Your task to perform on an android device: turn on priority inbox in the gmail app Image 0: 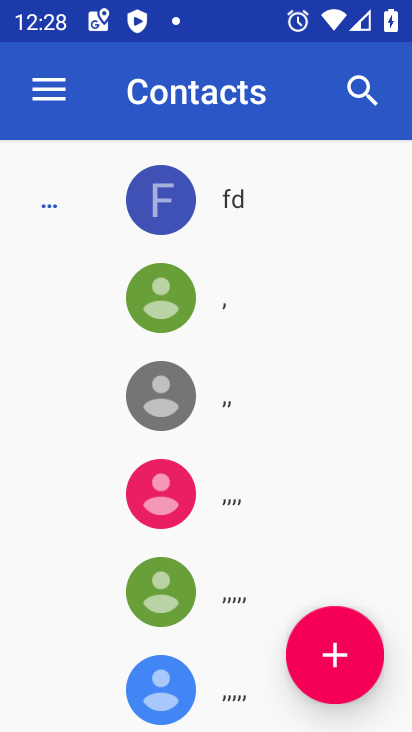
Step 0: press home button
Your task to perform on an android device: turn on priority inbox in the gmail app Image 1: 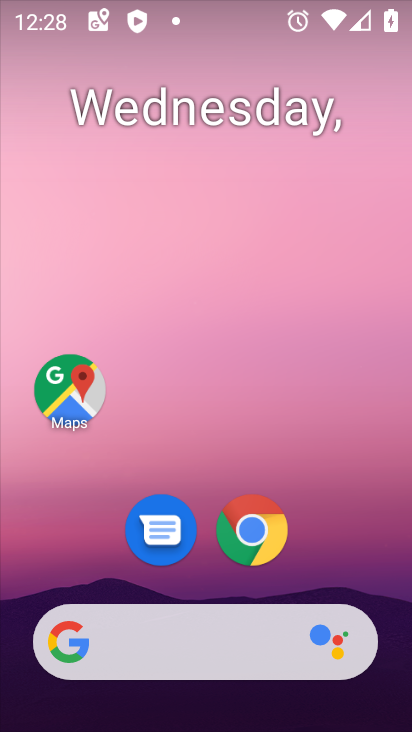
Step 1: drag from (149, 570) to (280, 172)
Your task to perform on an android device: turn on priority inbox in the gmail app Image 2: 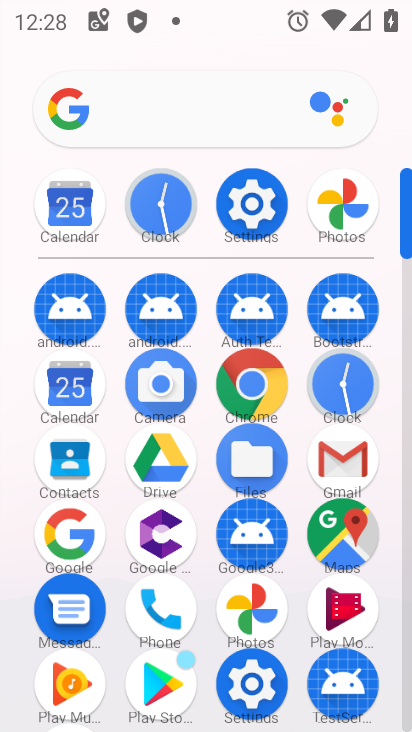
Step 2: click (356, 472)
Your task to perform on an android device: turn on priority inbox in the gmail app Image 3: 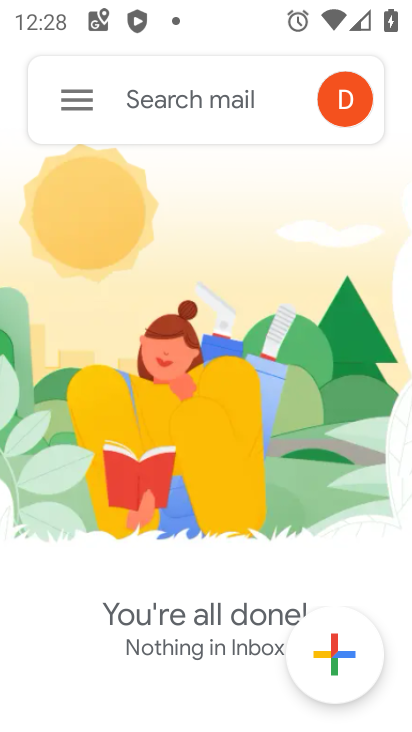
Step 3: click (66, 104)
Your task to perform on an android device: turn on priority inbox in the gmail app Image 4: 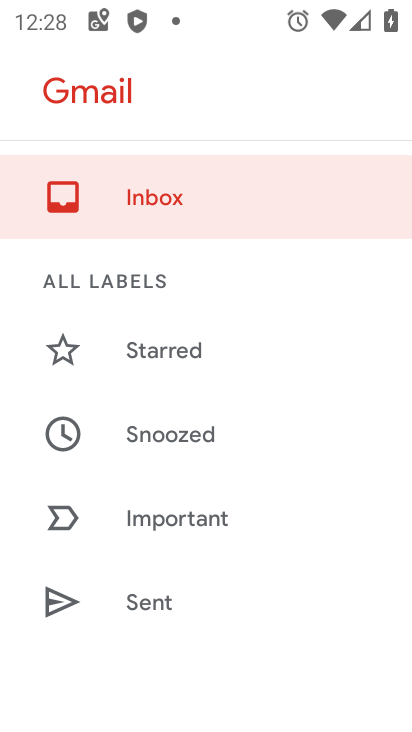
Step 4: drag from (159, 559) to (273, 189)
Your task to perform on an android device: turn on priority inbox in the gmail app Image 5: 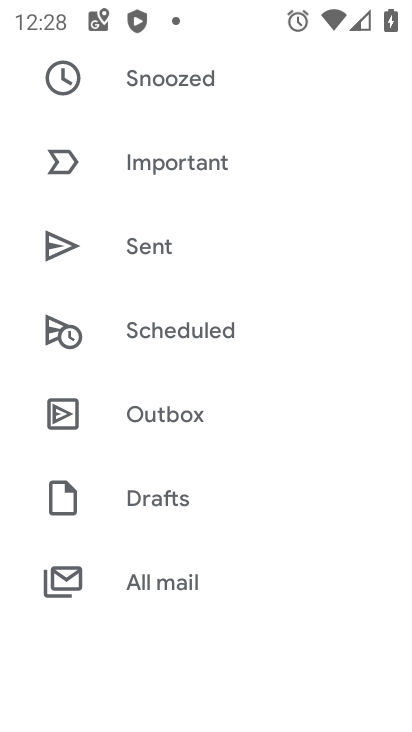
Step 5: drag from (175, 599) to (294, 214)
Your task to perform on an android device: turn on priority inbox in the gmail app Image 6: 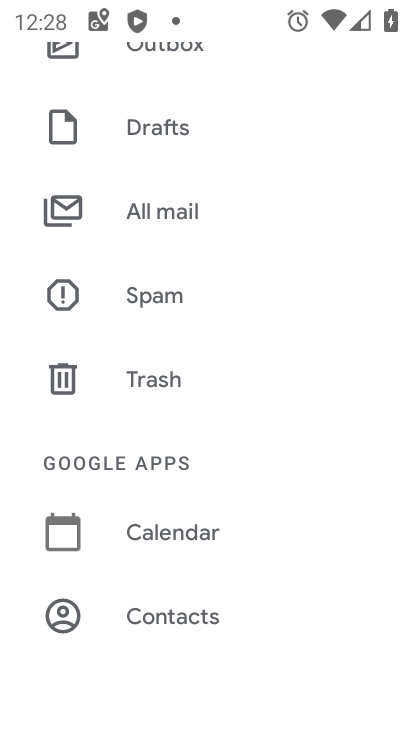
Step 6: drag from (201, 554) to (331, 127)
Your task to perform on an android device: turn on priority inbox in the gmail app Image 7: 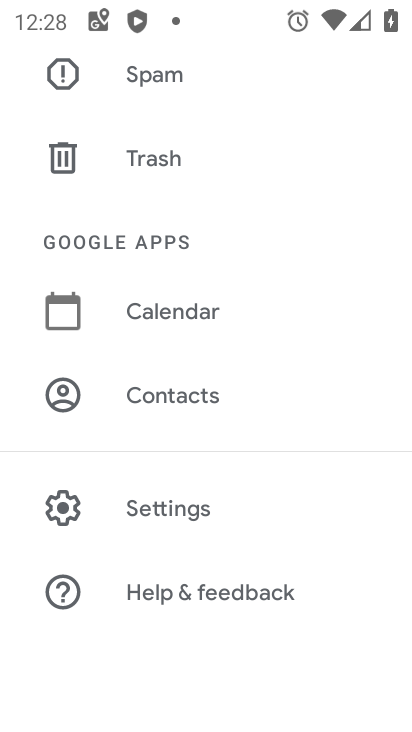
Step 7: click (189, 518)
Your task to perform on an android device: turn on priority inbox in the gmail app Image 8: 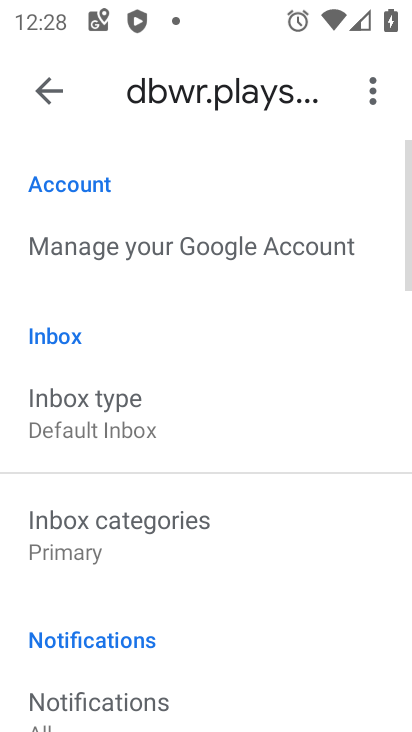
Step 8: click (109, 432)
Your task to perform on an android device: turn on priority inbox in the gmail app Image 9: 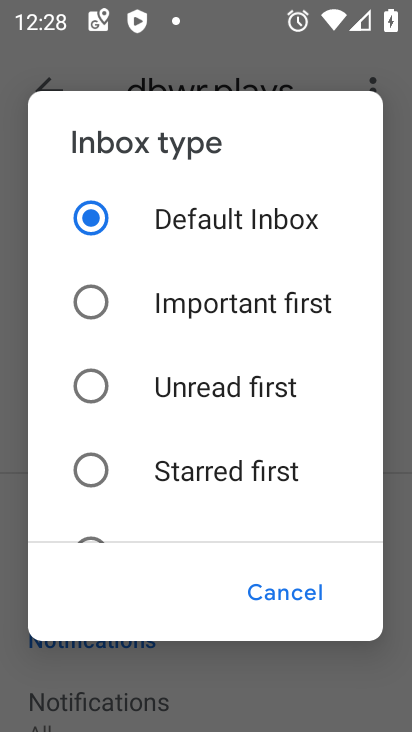
Step 9: drag from (153, 494) to (239, 215)
Your task to perform on an android device: turn on priority inbox in the gmail app Image 10: 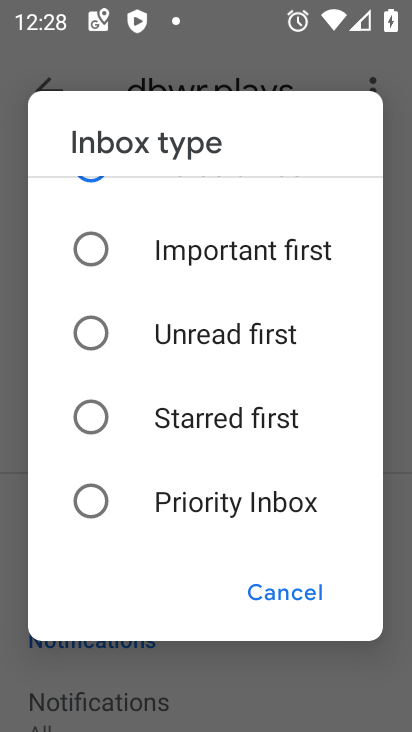
Step 10: click (77, 489)
Your task to perform on an android device: turn on priority inbox in the gmail app Image 11: 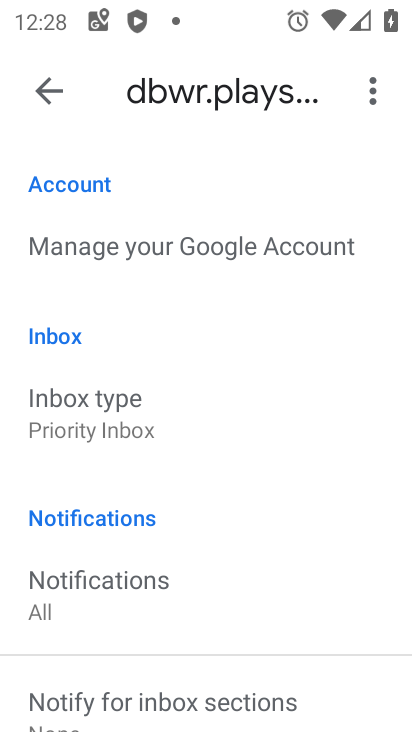
Step 11: task complete